Your task to perform on an android device: open device folders in google photos Image 0: 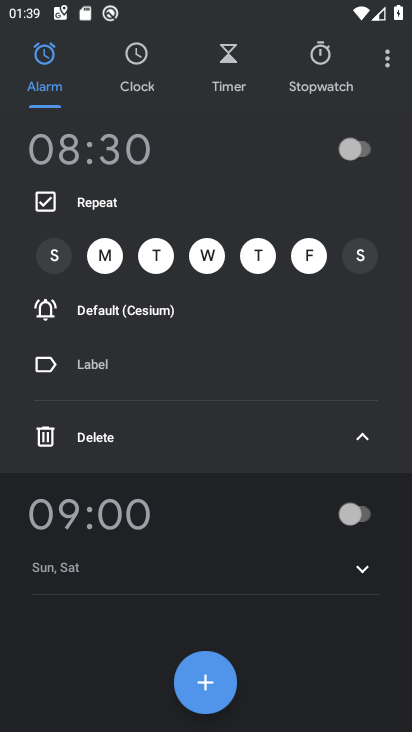
Step 0: press home button
Your task to perform on an android device: open device folders in google photos Image 1: 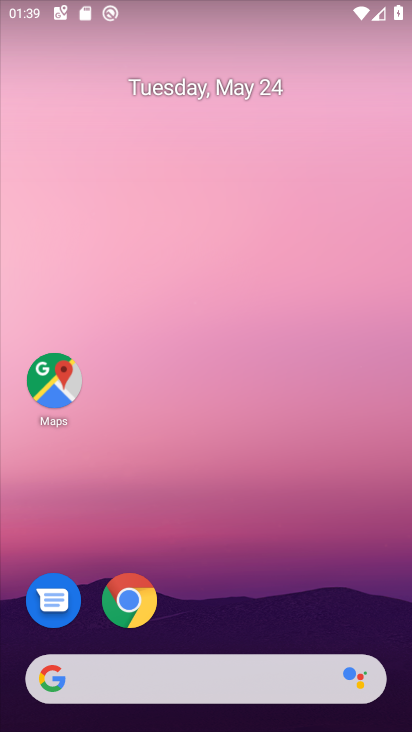
Step 1: drag from (250, 484) to (258, 196)
Your task to perform on an android device: open device folders in google photos Image 2: 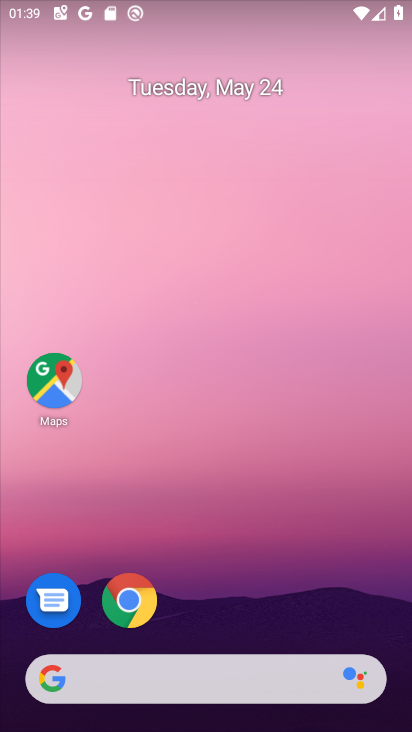
Step 2: drag from (246, 547) to (256, 230)
Your task to perform on an android device: open device folders in google photos Image 3: 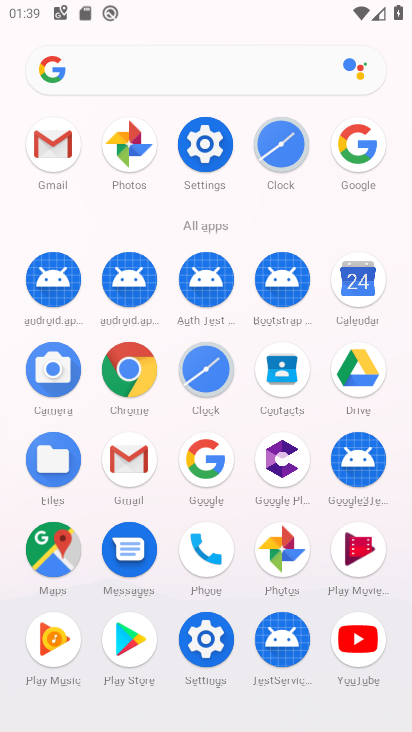
Step 3: click (126, 161)
Your task to perform on an android device: open device folders in google photos Image 4: 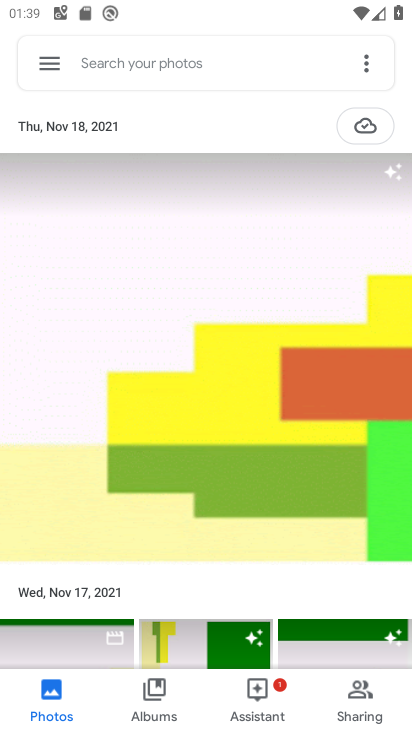
Step 4: task complete